Your task to perform on an android device: What's on my calendar today? Image 0: 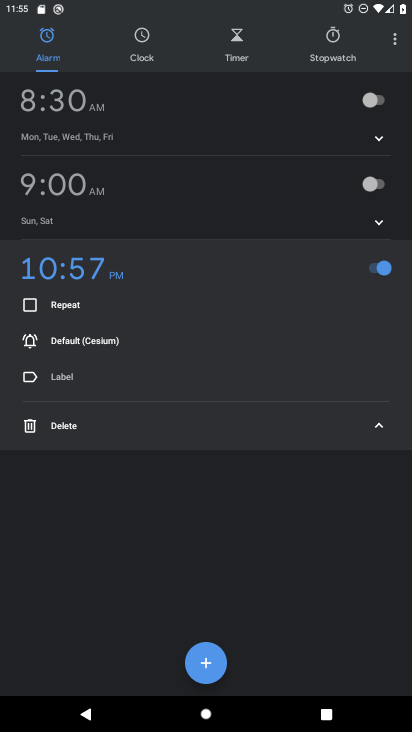
Step 0: press home button
Your task to perform on an android device: What's on my calendar today? Image 1: 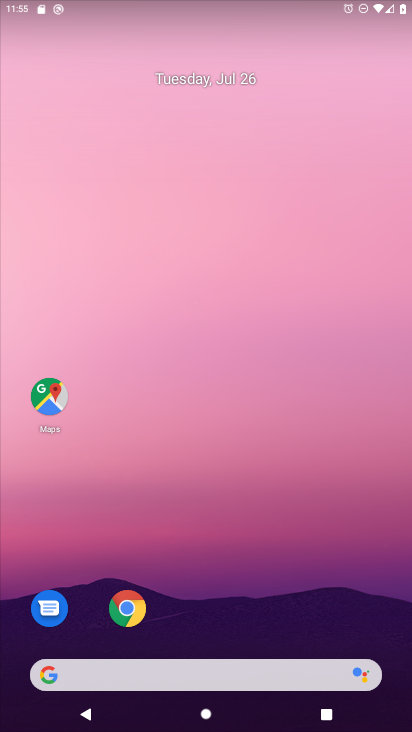
Step 1: drag from (289, 575) to (256, 93)
Your task to perform on an android device: What's on my calendar today? Image 2: 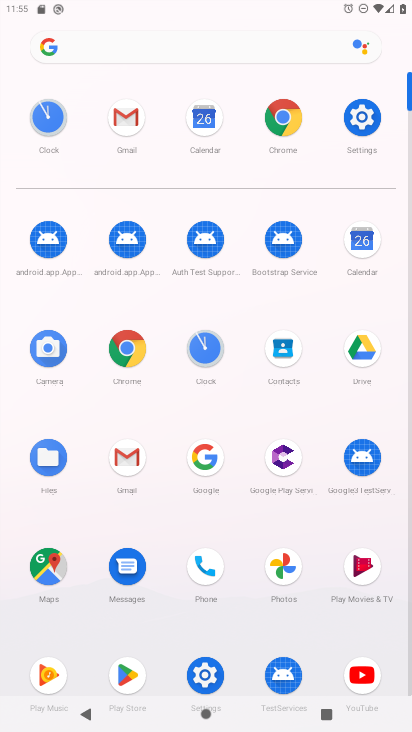
Step 2: click (363, 253)
Your task to perform on an android device: What's on my calendar today? Image 3: 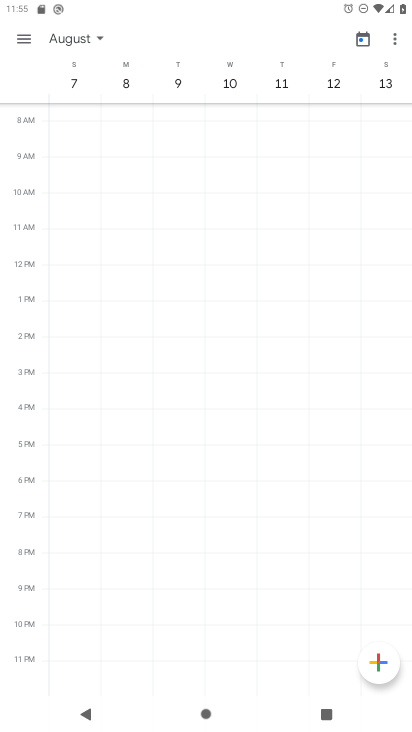
Step 3: click (84, 36)
Your task to perform on an android device: What's on my calendar today? Image 4: 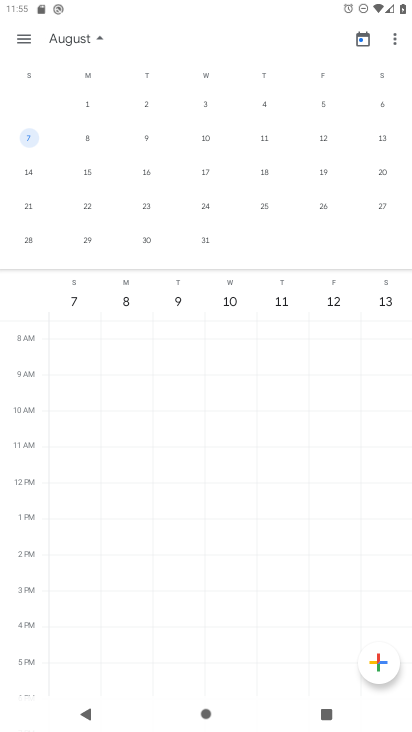
Step 4: drag from (75, 147) to (393, 148)
Your task to perform on an android device: What's on my calendar today? Image 5: 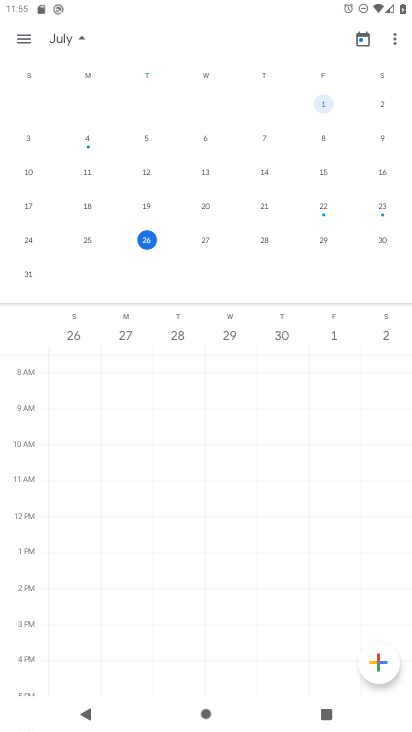
Step 5: click (151, 242)
Your task to perform on an android device: What's on my calendar today? Image 6: 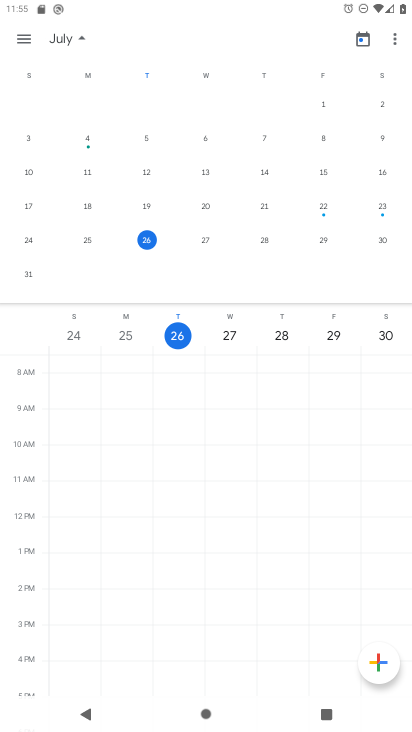
Step 6: task complete